Your task to perform on an android device: Open notification settings Image 0: 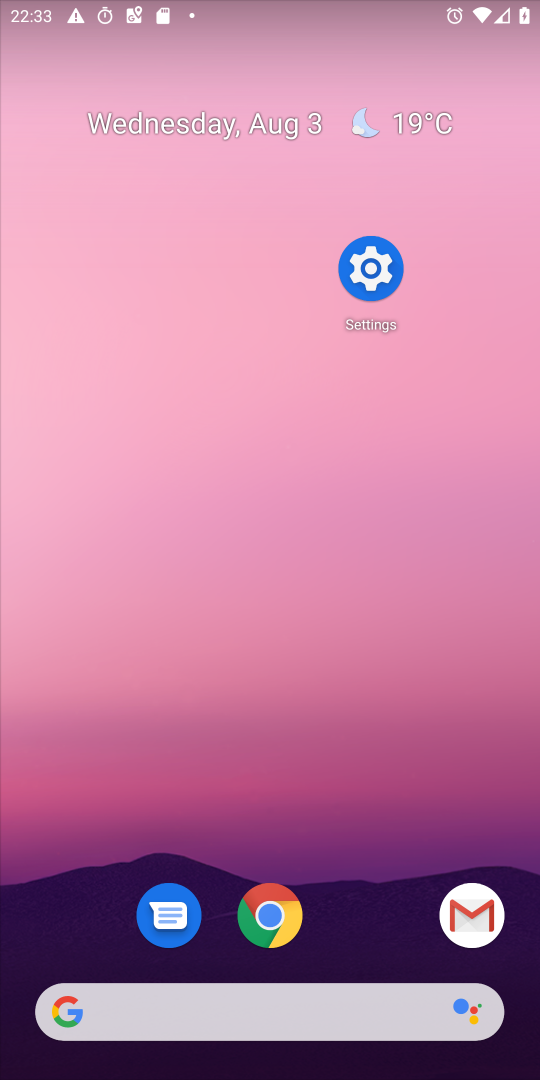
Step 0: press home button
Your task to perform on an android device: Open notification settings Image 1: 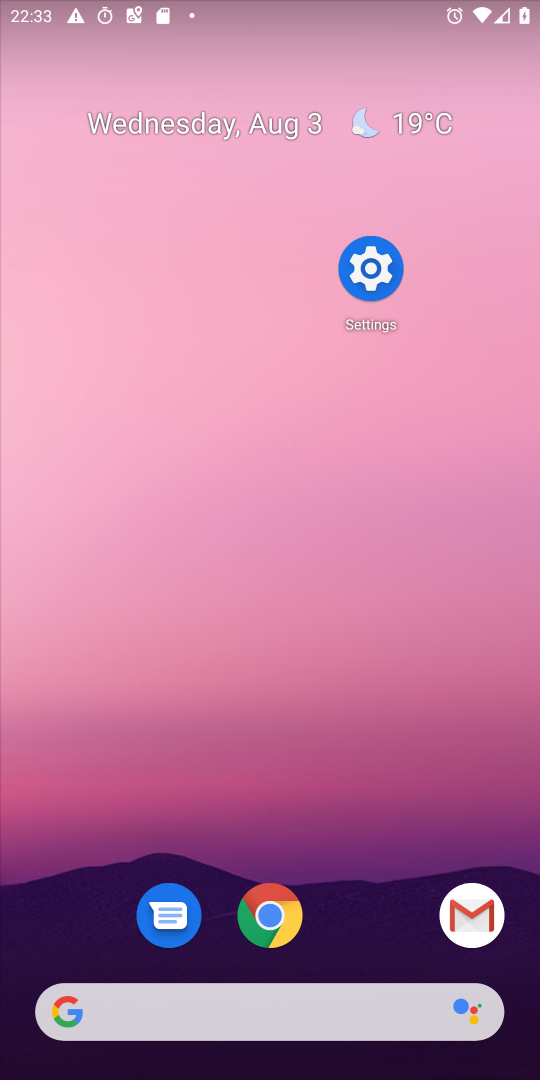
Step 1: drag from (346, 1021) to (209, 245)
Your task to perform on an android device: Open notification settings Image 2: 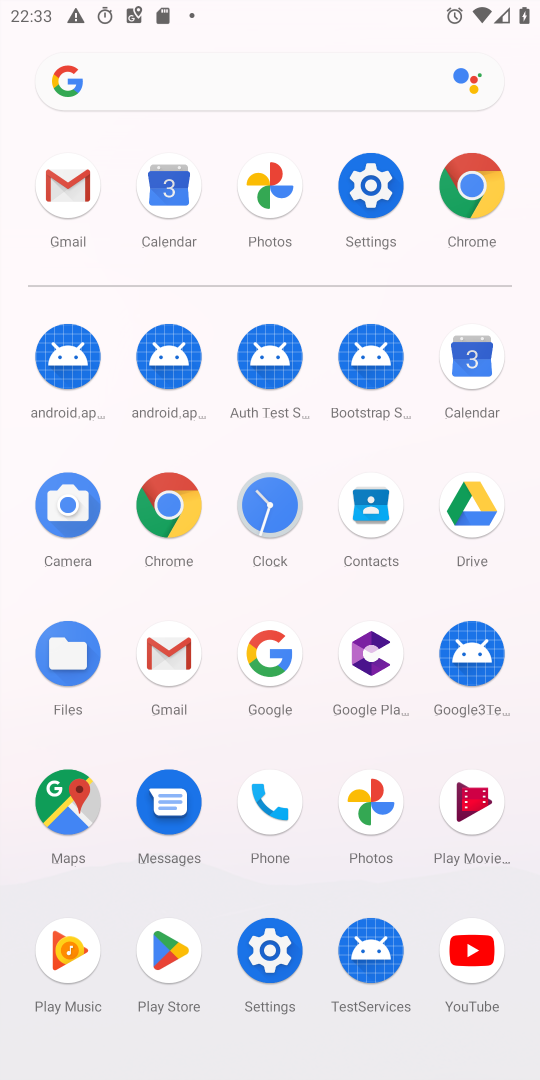
Step 2: click (380, 183)
Your task to perform on an android device: Open notification settings Image 3: 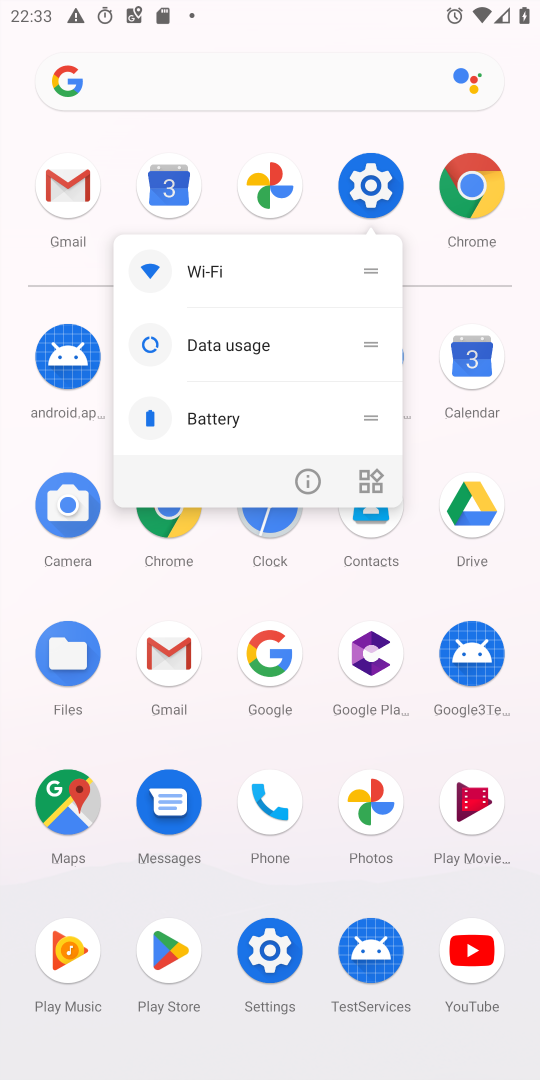
Step 3: click (370, 180)
Your task to perform on an android device: Open notification settings Image 4: 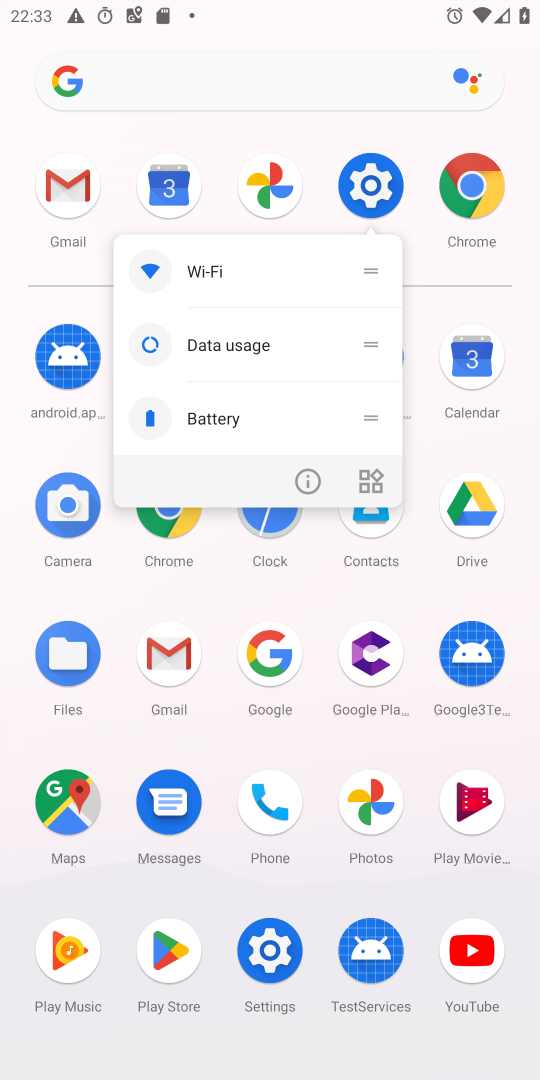
Step 4: click (367, 178)
Your task to perform on an android device: Open notification settings Image 5: 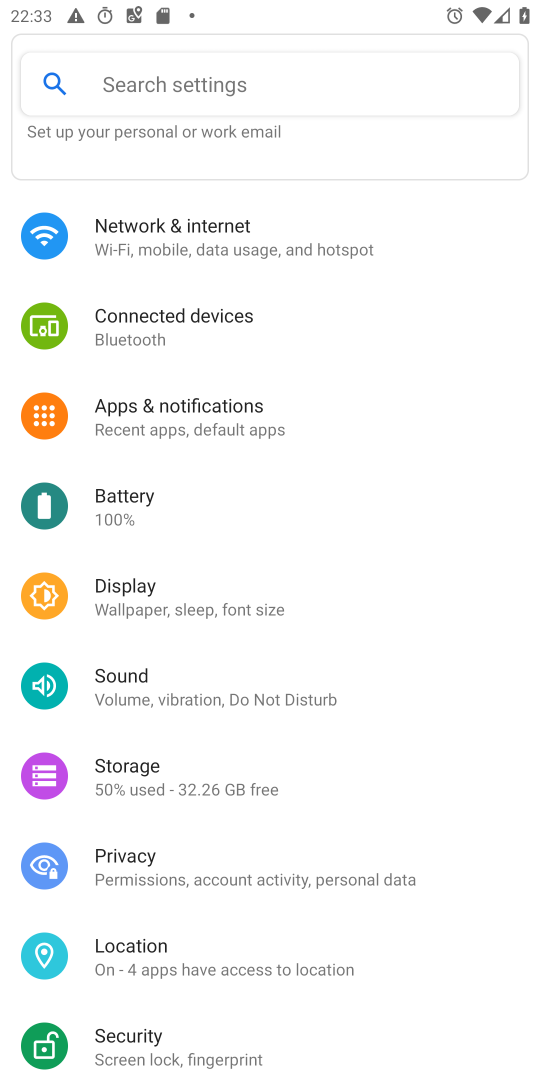
Step 5: click (155, 81)
Your task to perform on an android device: Open notification settings Image 6: 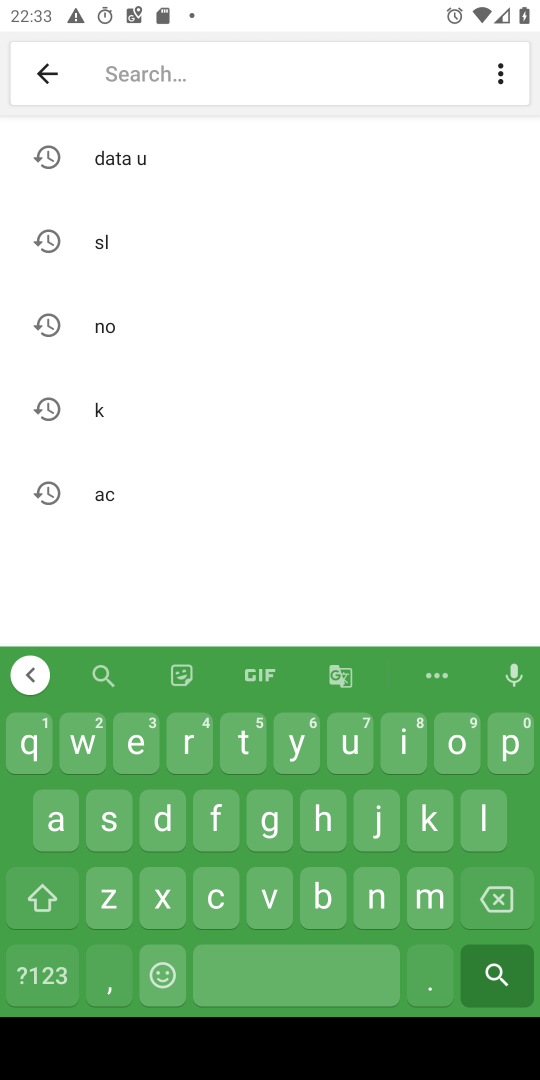
Step 6: click (374, 907)
Your task to perform on an android device: Open notification settings Image 7: 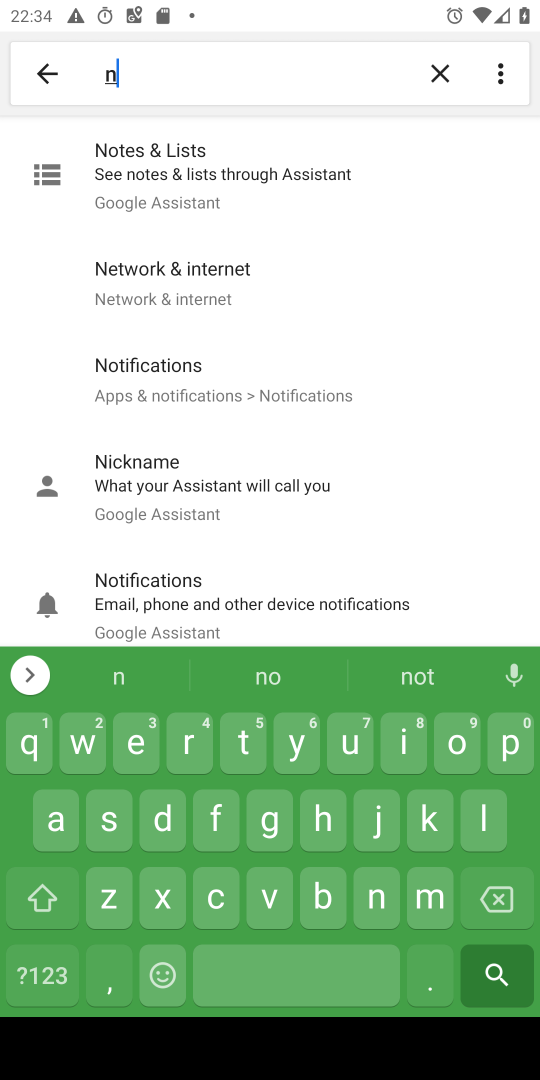
Step 7: click (444, 766)
Your task to perform on an android device: Open notification settings Image 8: 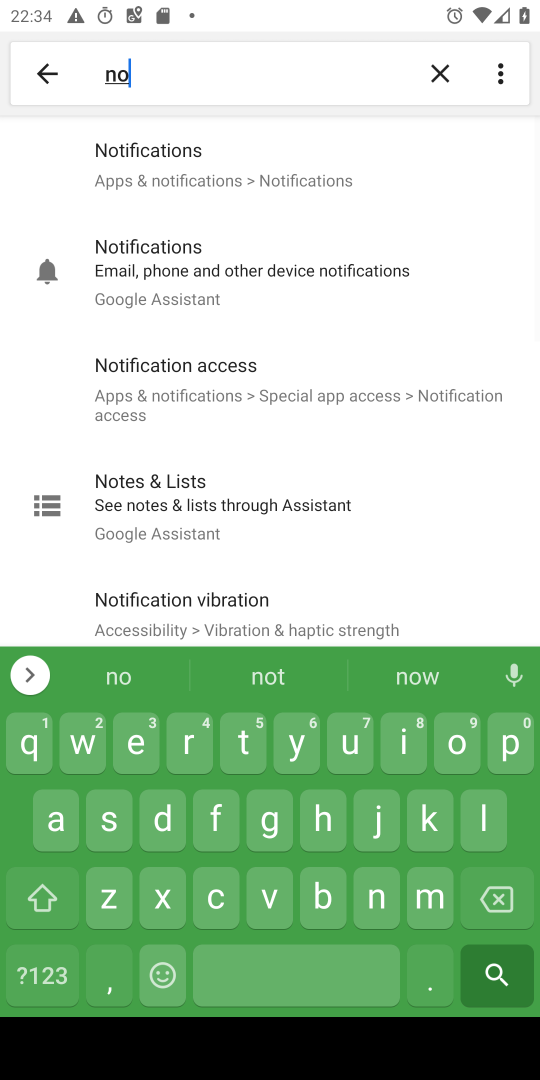
Step 8: click (189, 184)
Your task to perform on an android device: Open notification settings Image 9: 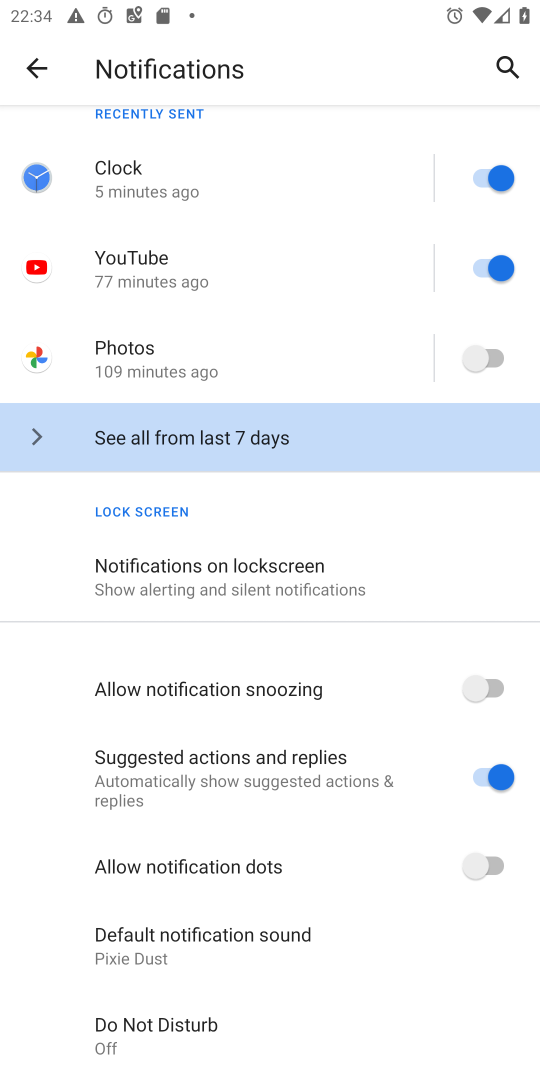
Step 9: click (207, 577)
Your task to perform on an android device: Open notification settings Image 10: 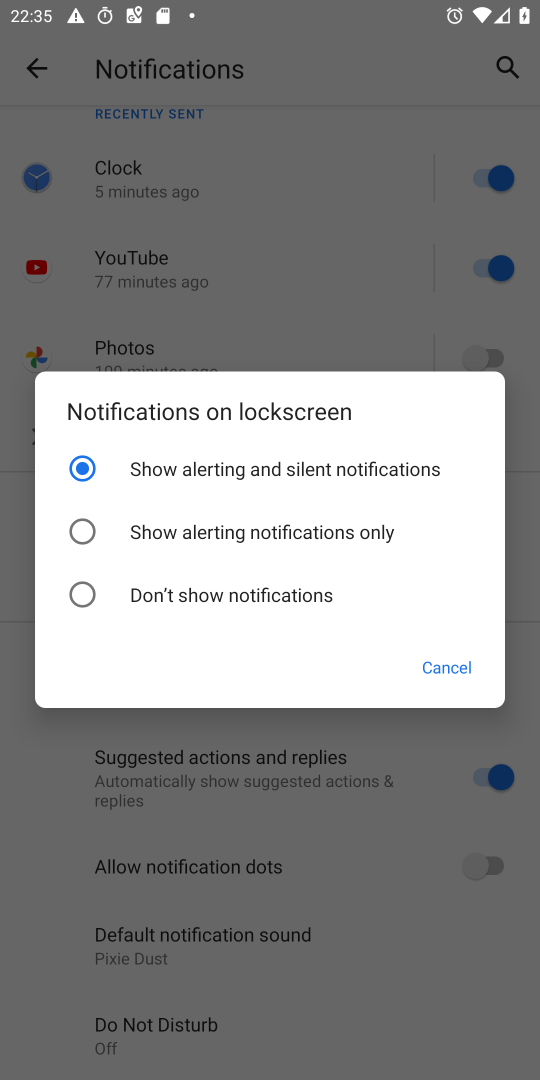
Step 10: task complete